Your task to perform on an android device: What's on my calendar today? Image 0: 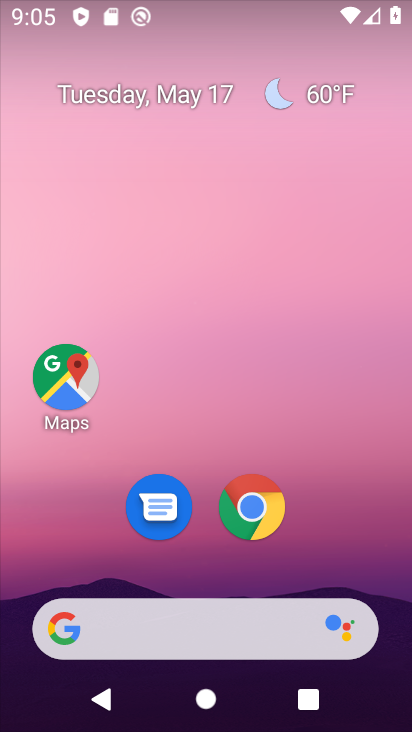
Step 0: drag from (270, 607) to (332, 22)
Your task to perform on an android device: What's on my calendar today? Image 1: 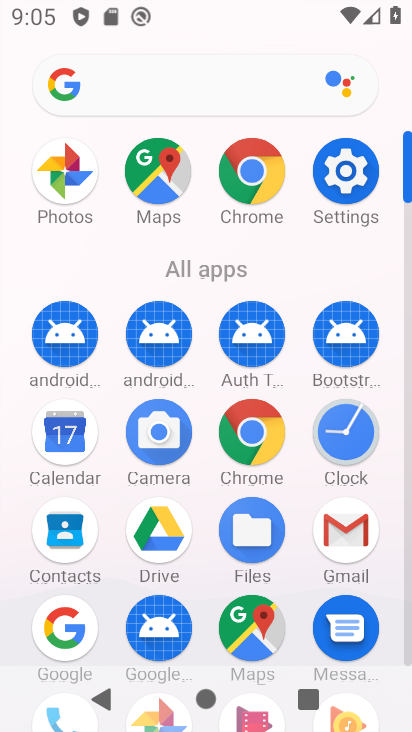
Step 1: click (66, 451)
Your task to perform on an android device: What's on my calendar today? Image 2: 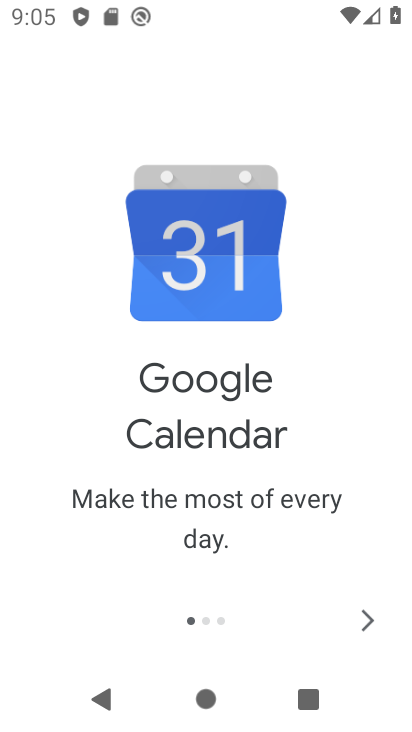
Step 2: click (370, 617)
Your task to perform on an android device: What's on my calendar today? Image 3: 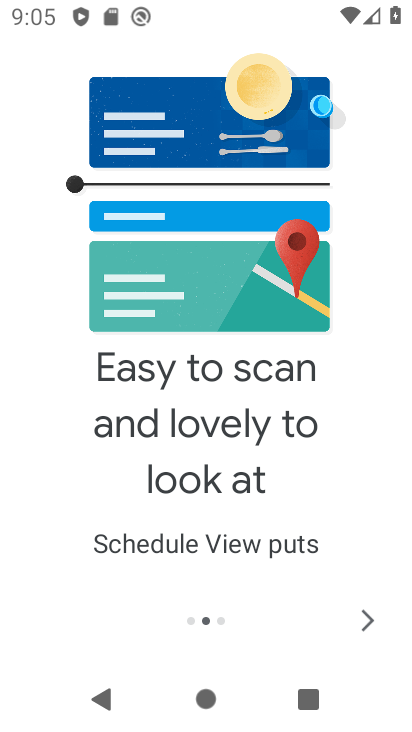
Step 3: click (369, 620)
Your task to perform on an android device: What's on my calendar today? Image 4: 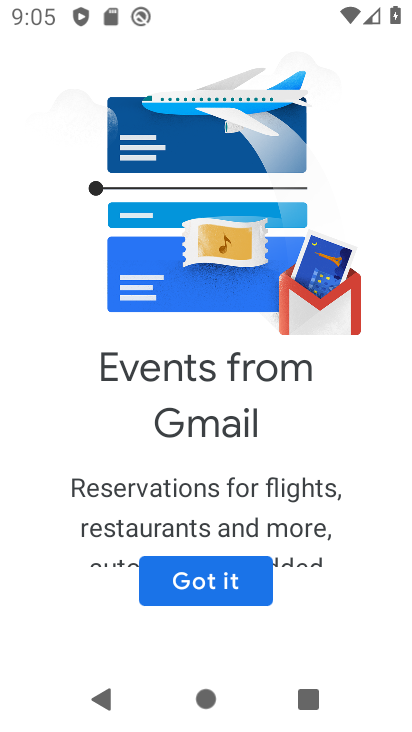
Step 4: click (242, 601)
Your task to perform on an android device: What's on my calendar today? Image 5: 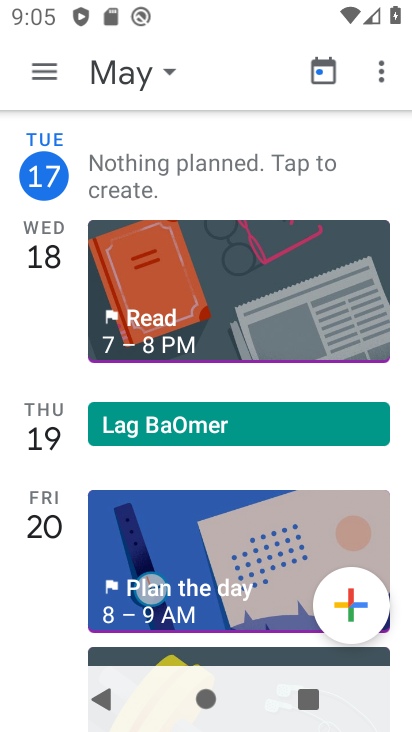
Step 5: task complete